Your task to perform on an android device: Open settings Image 0: 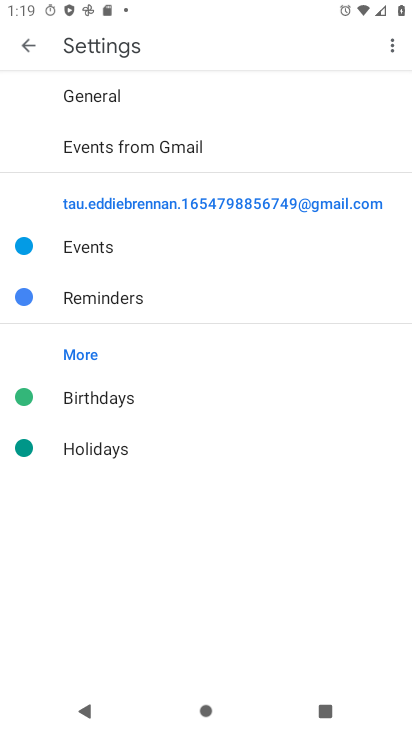
Step 0: press home button
Your task to perform on an android device: Open settings Image 1: 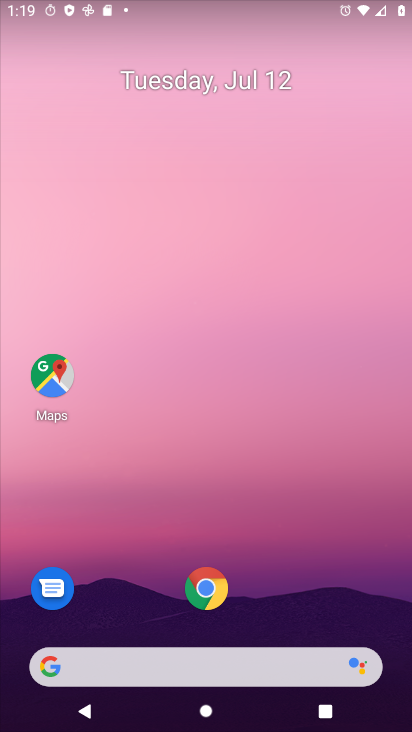
Step 1: drag from (139, 663) to (262, 25)
Your task to perform on an android device: Open settings Image 2: 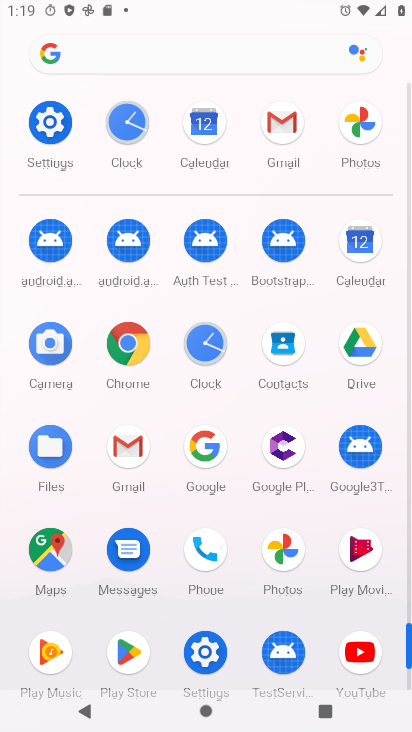
Step 2: click (46, 114)
Your task to perform on an android device: Open settings Image 3: 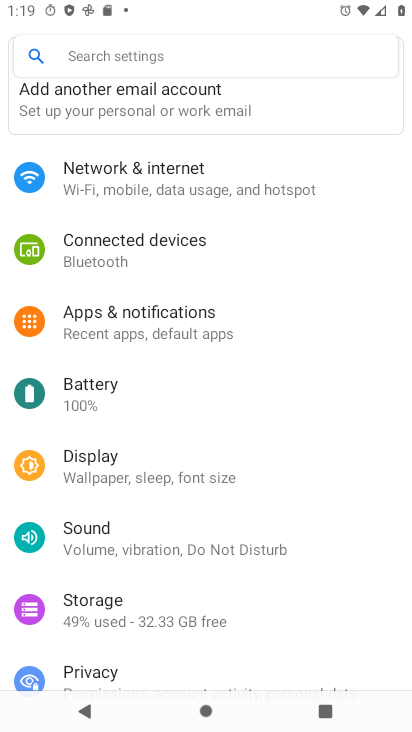
Step 3: task complete